Your task to perform on an android device: Do I have any events this weekend? Image 0: 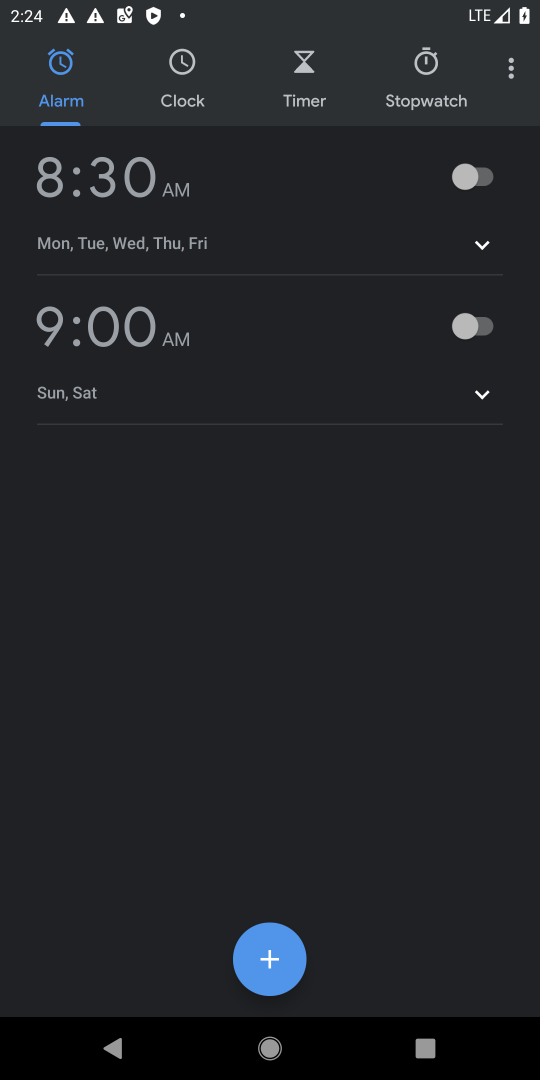
Step 0: press home button
Your task to perform on an android device: Do I have any events this weekend? Image 1: 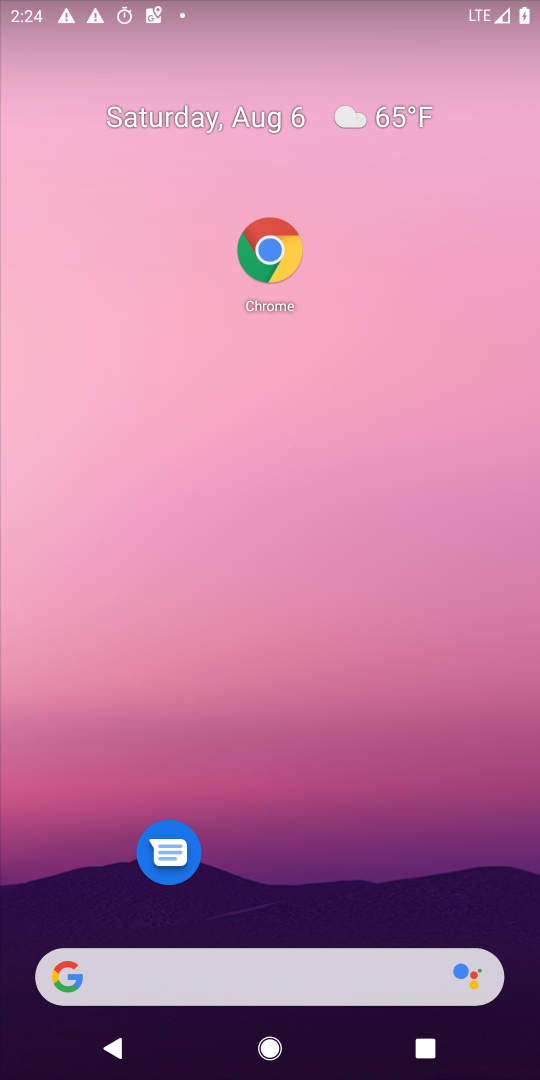
Step 1: drag from (340, 999) to (341, 362)
Your task to perform on an android device: Do I have any events this weekend? Image 2: 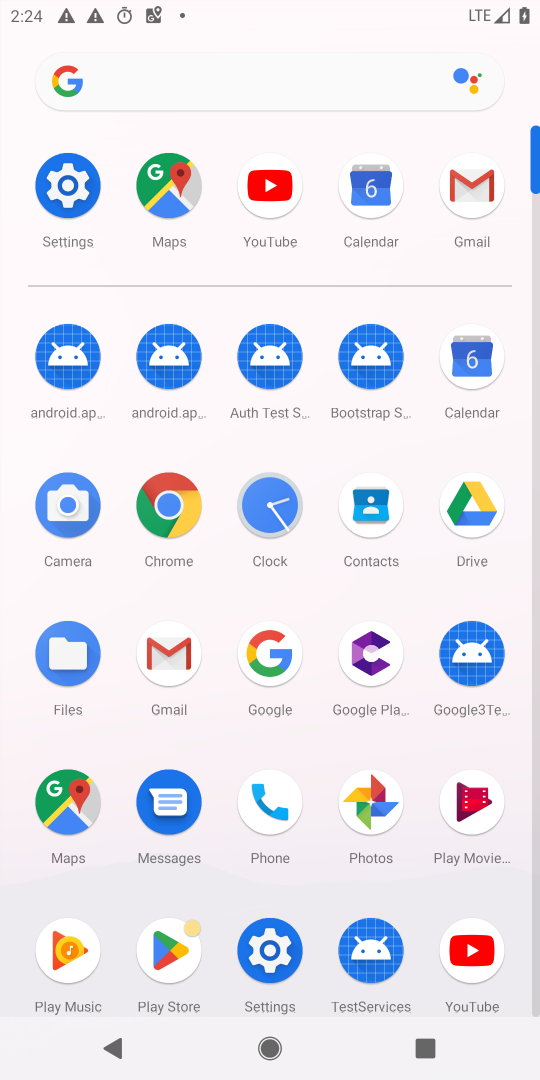
Step 2: click (464, 385)
Your task to perform on an android device: Do I have any events this weekend? Image 3: 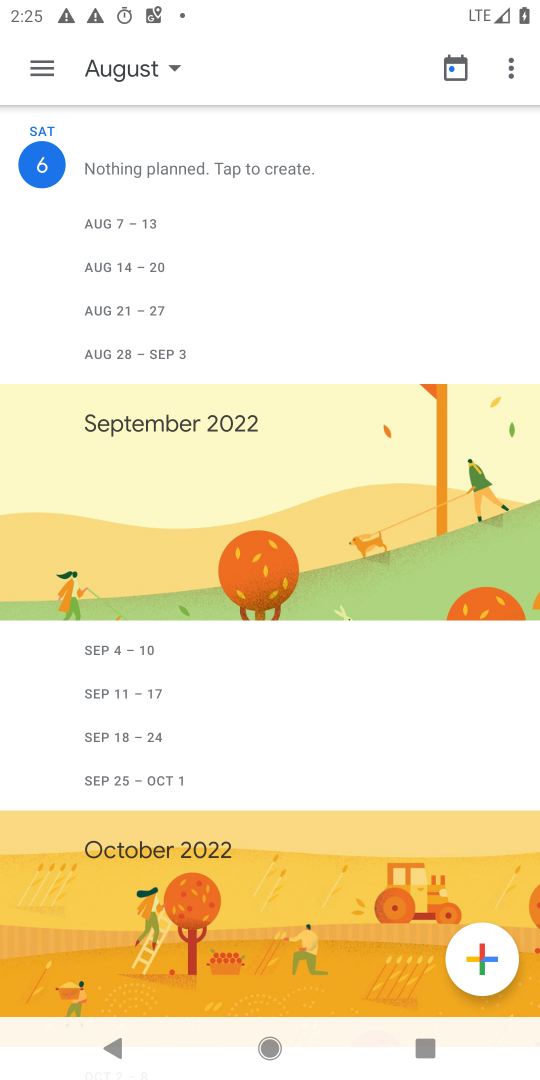
Step 3: click (35, 89)
Your task to perform on an android device: Do I have any events this weekend? Image 4: 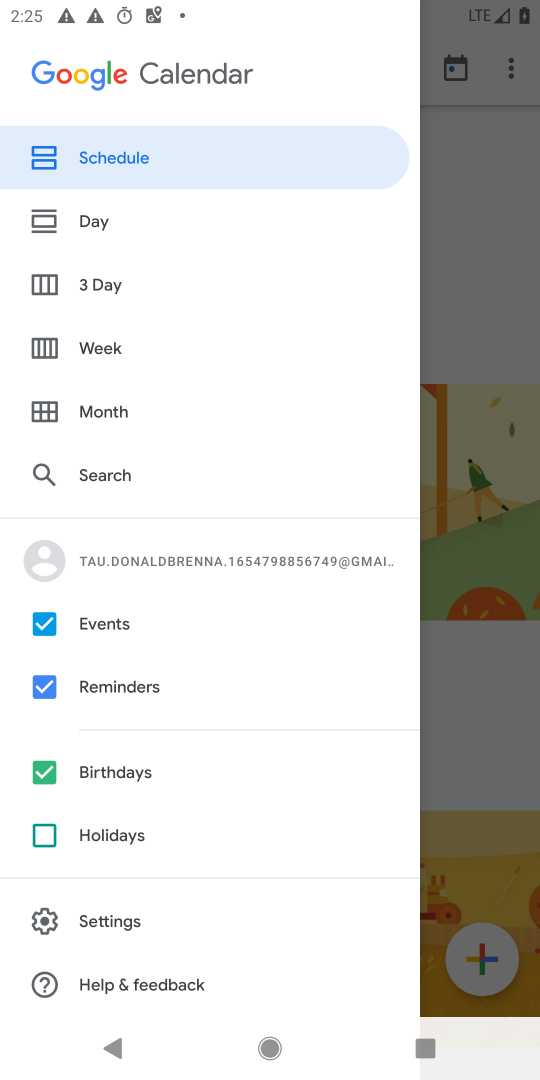
Step 4: click (110, 360)
Your task to perform on an android device: Do I have any events this weekend? Image 5: 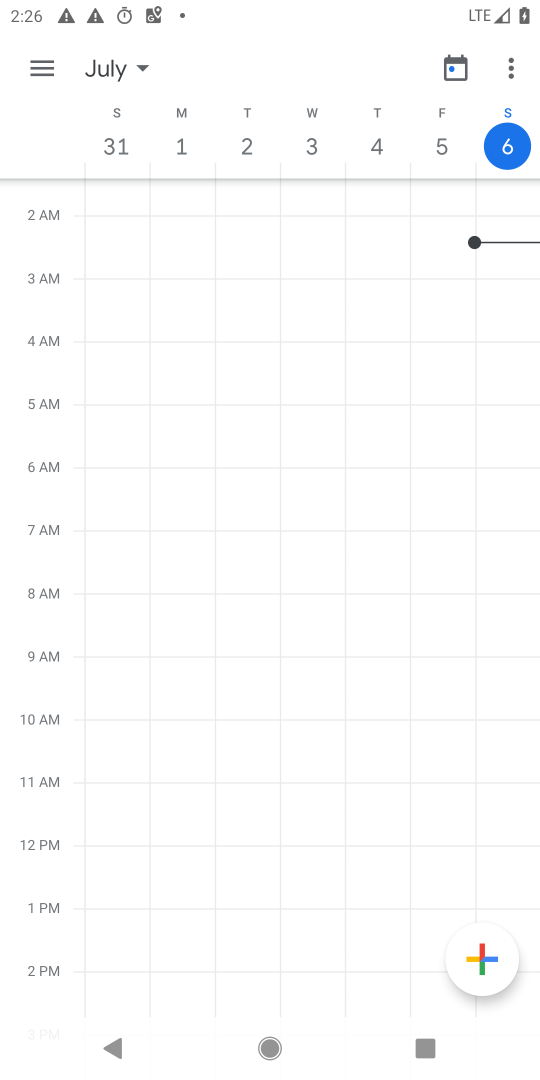
Step 5: task complete